Your task to perform on an android device: Go to notification settings Image 0: 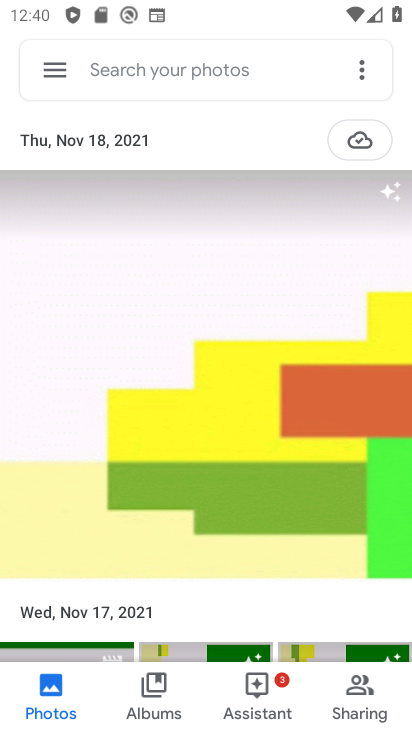
Step 0: press home button
Your task to perform on an android device: Go to notification settings Image 1: 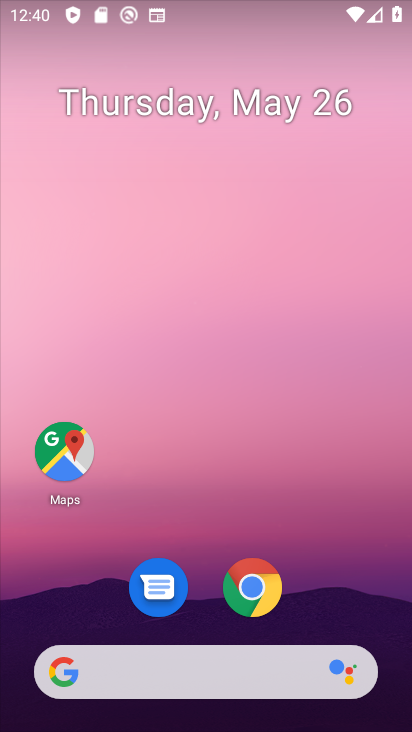
Step 1: drag from (374, 612) to (362, 205)
Your task to perform on an android device: Go to notification settings Image 2: 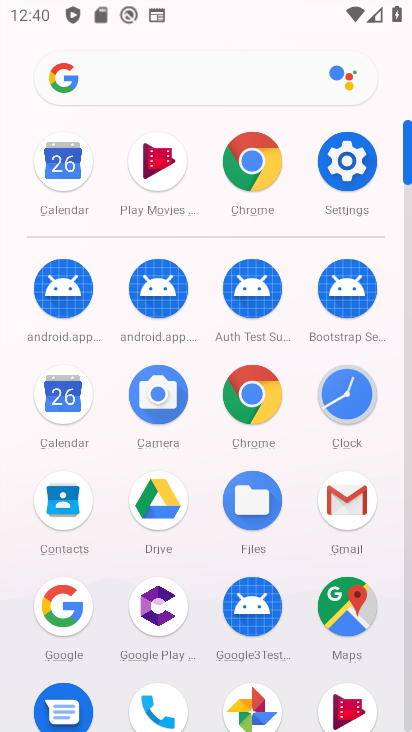
Step 2: click (353, 159)
Your task to perform on an android device: Go to notification settings Image 3: 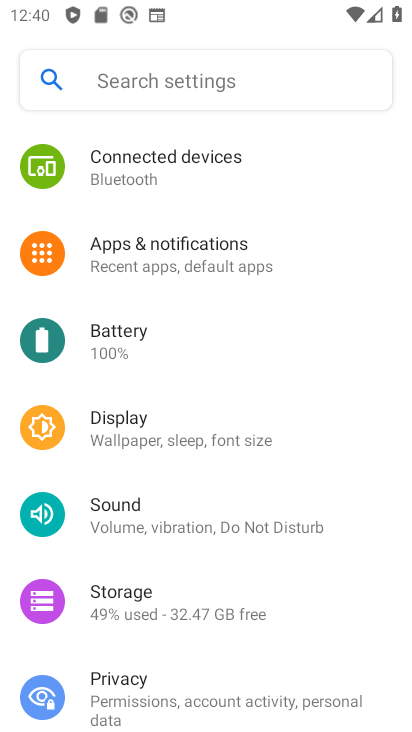
Step 3: drag from (343, 211) to (338, 326)
Your task to perform on an android device: Go to notification settings Image 4: 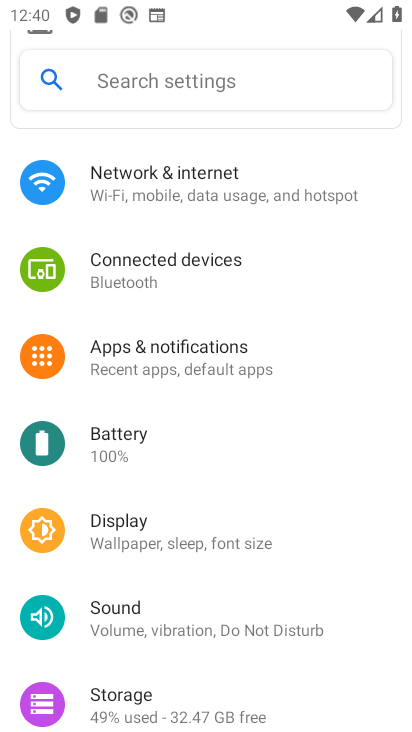
Step 4: drag from (380, 162) to (375, 310)
Your task to perform on an android device: Go to notification settings Image 5: 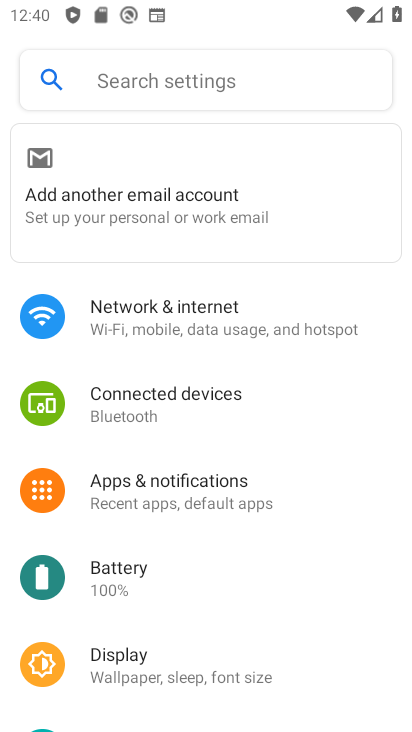
Step 5: drag from (350, 180) to (366, 333)
Your task to perform on an android device: Go to notification settings Image 6: 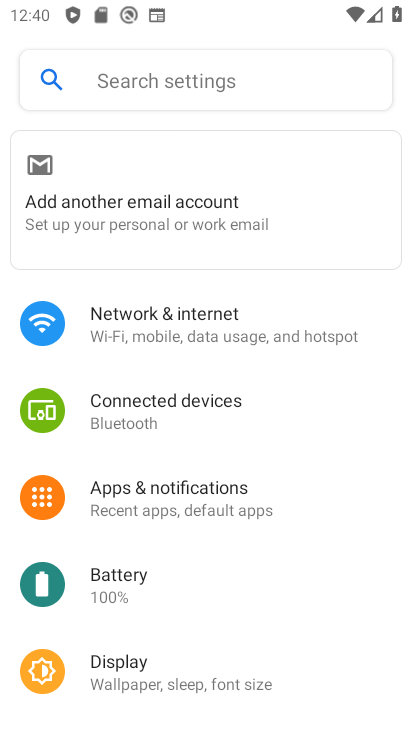
Step 6: drag from (334, 448) to (334, 337)
Your task to perform on an android device: Go to notification settings Image 7: 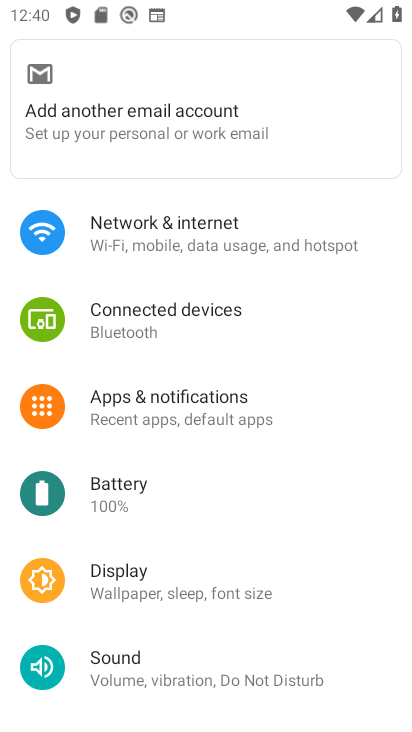
Step 7: drag from (338, 431) to (345, 334)
Your task to perform on an android device: Go to notification settings Image 8: 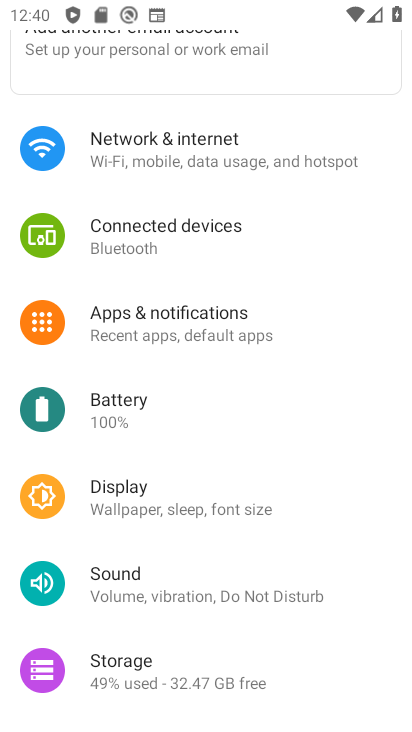
Step 8: drag from (329, 454) to (334, 345)
Your task to perform on an android device: Go to notification settings Image 9: 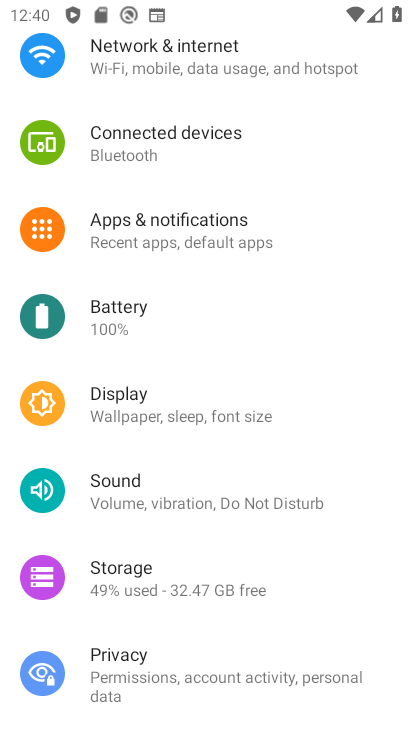
Step 9: drag from (344, 441) to (352, 338)
Your task to perform on an android device: Go to notification settings Image 10: 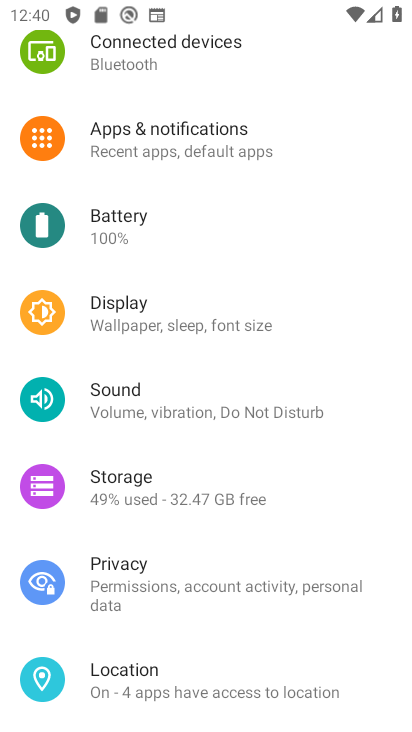
Step 10: drag from (350, 466) to (350, 350)
Your task to perform on an android device: Go to notification settings Image 11: 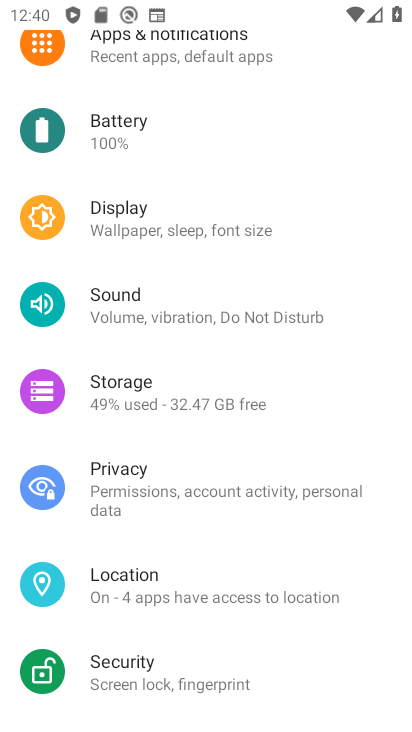
Step 11: drag from (329, 485) to (338, 374)
Your task to perform on an android device: Go to notification settings Image 12: 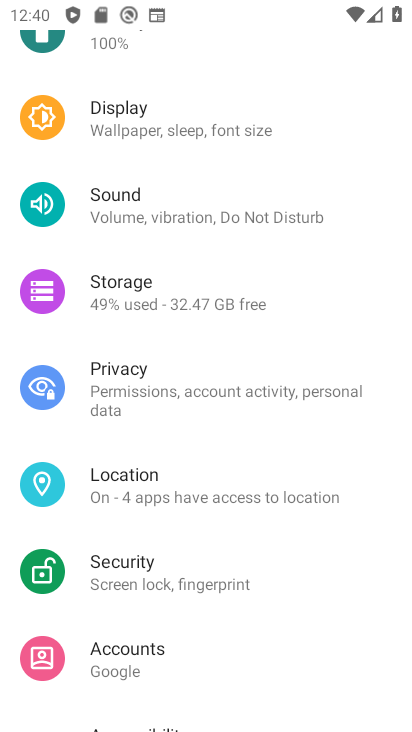
Step 12: drag from (331, 505) to (319, 396)
Your task to perform on an android device: Go to notification settings Image 13: 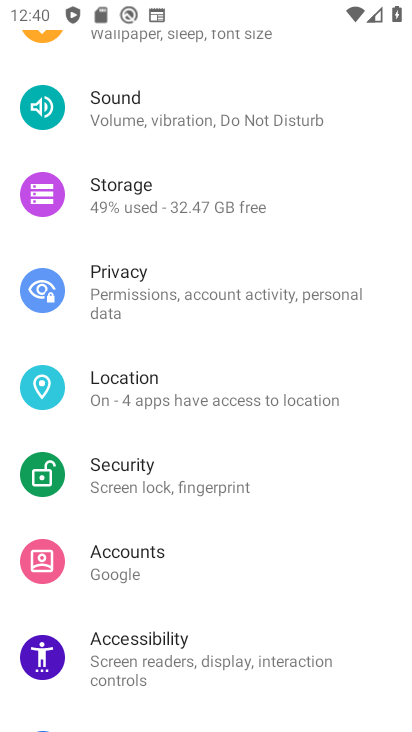
Step 13: drag from (294, 534) to (302, 415)
Your task to perform on an android device: Go to notification settings Image 14: 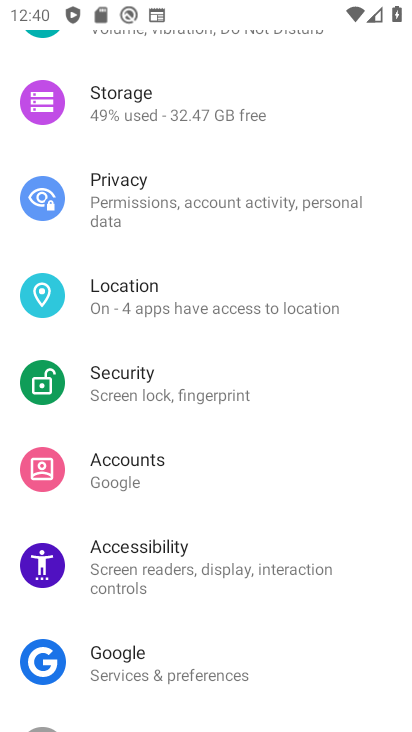
Step 14: drag from (315, 544) to (315, 434)
Your task to perform on an android device: Go to notification settings Image 15: 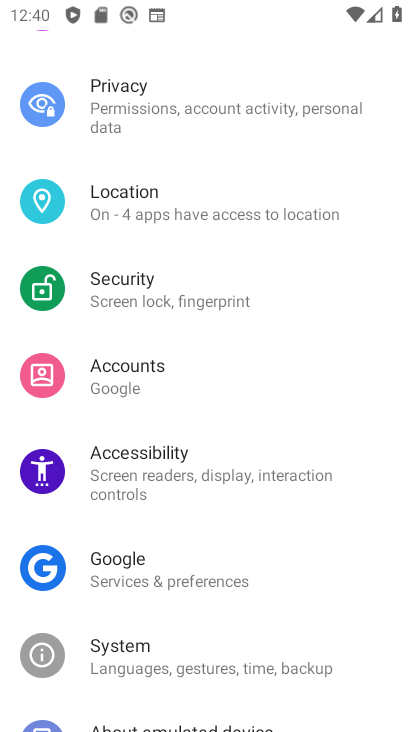
Step 15: drag from (336, 579) to (355, 481)
Your task to perform on an android device: Go to notification settings Image 16: 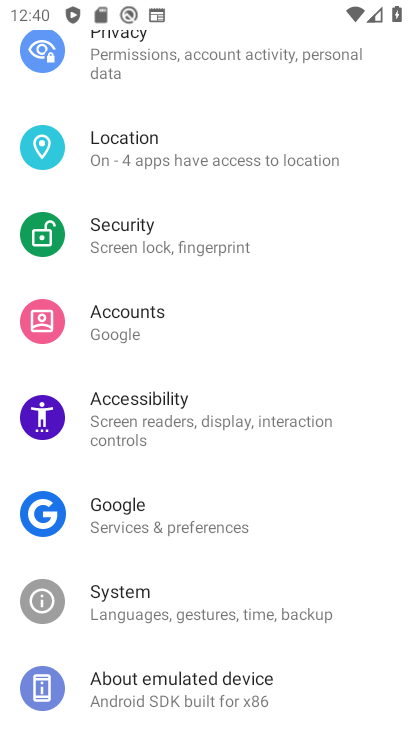
Step 16: drag from (348, 377) to (342, 485)
Your task to perform on an android device: Go to notification settings Image 17: 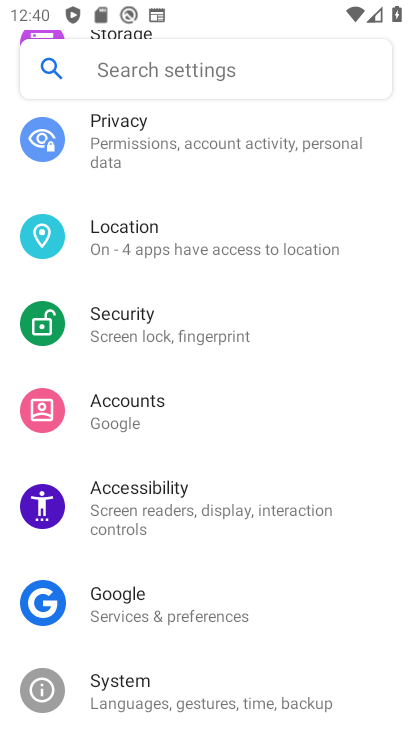
Step 17: drag from (337, 388) to (332, 466)
Your task to perform on an android device: Go to notification settings Image 18: 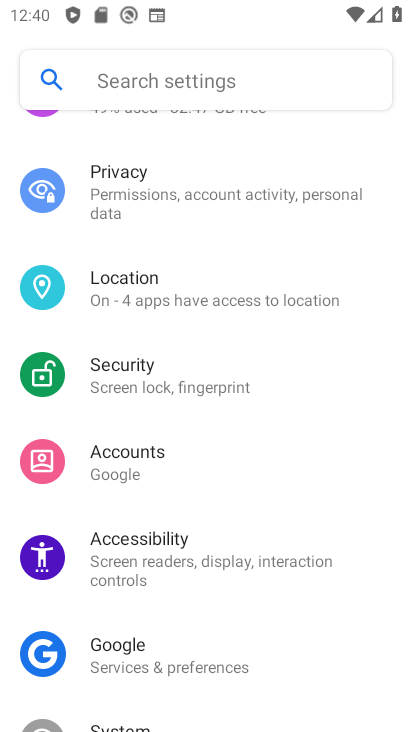
Step 18: drag from (346, 367) to (350, 456)
Your task to perform on an android device: Go to notification settings Image 19: 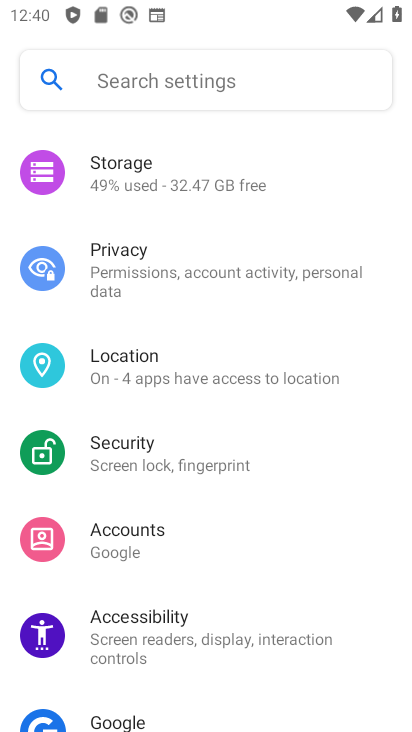
Step 19: drag from (358, 341) to (349, 423)
Your task to perform on an android device: Go to notification settings Image 20: 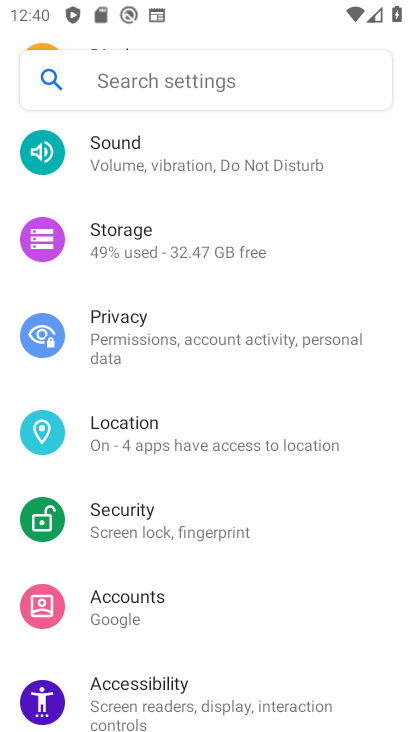
Step 20: drag from (356, 275) to (358, 392)
Your task to perform on an android device: Go to notification settings Image 21: 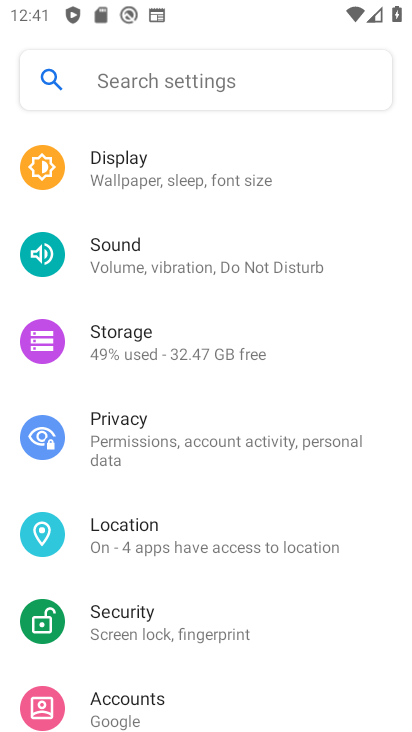
Step 21: drag from (365, 262) to (360, 371)
Your task to perform on an android device: Go to notification settings Image 22: 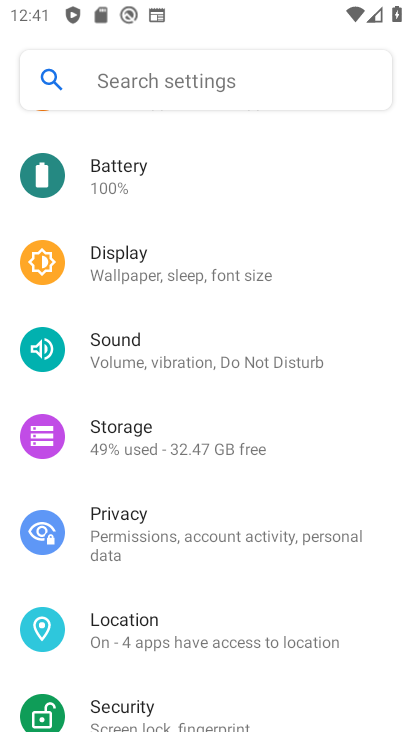
Step 22: drag from (365, 292) to (362, 404)
Your task to perform on an android device: Go to notification settings Image 23: 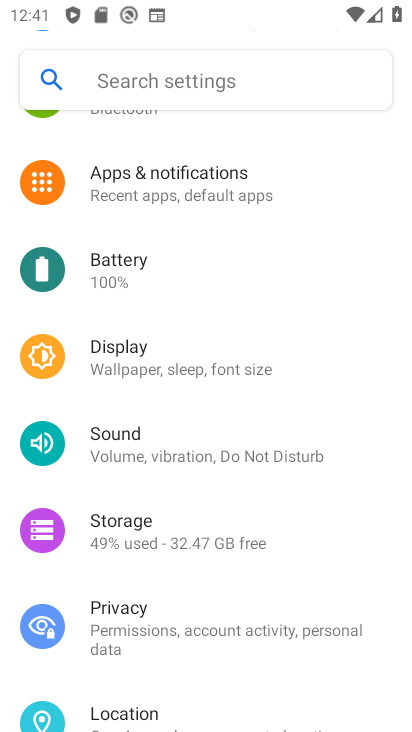
Step 23: drag from (366, 331) to (363, 410)
Your task to perform on an android device: Go to notification settings Image 24: 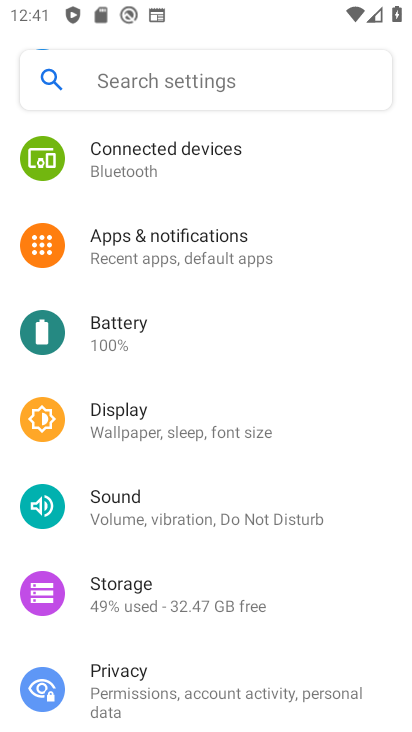
Step 24: drag from (355, 298) to (357, 409)
Your task to perform on an android device: Go to notification settings Image 25: 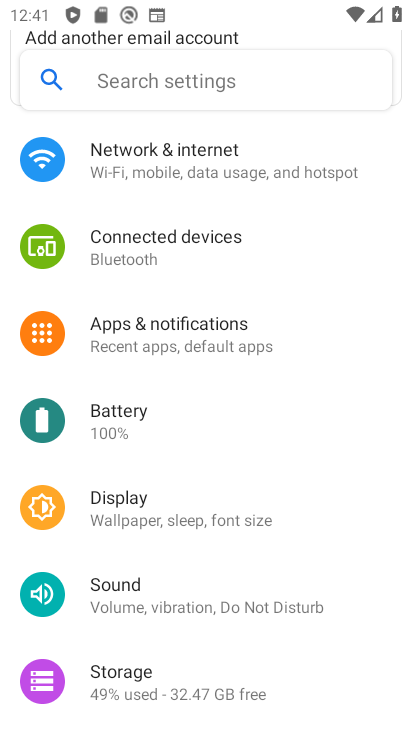
Step 25: drag from (342, 327) to (353, 447)
Your task to perform on an android device: Go to notification settings Image 26: 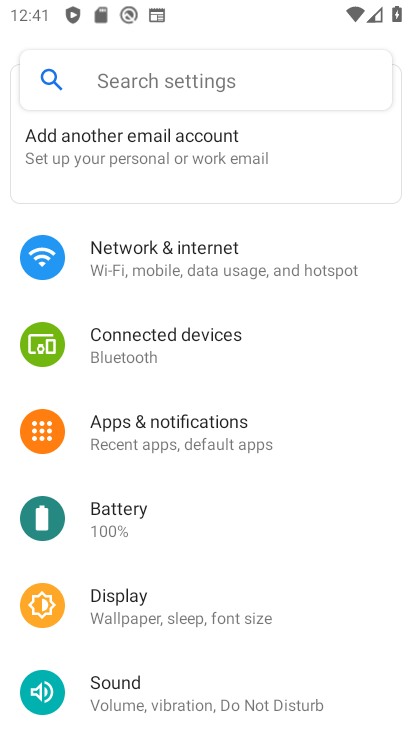
Step 26: click (252, 424)
Your task to perform on an android device: Go to notification settings Image 27: 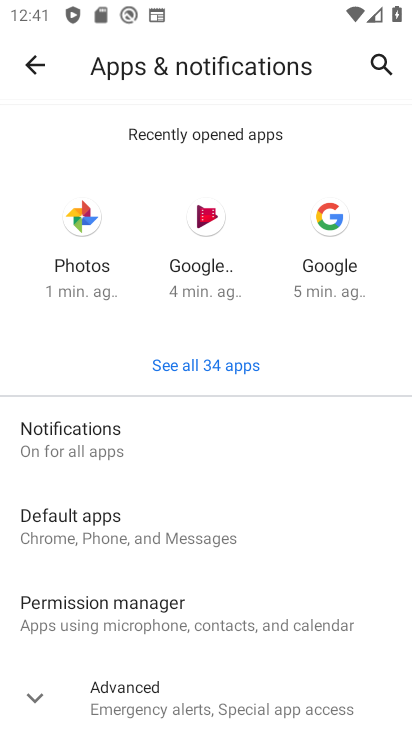
Step 27: drag from (286, 562) to (299, 462)
Your task to perform on an android device: Go to notification settings Image 28: 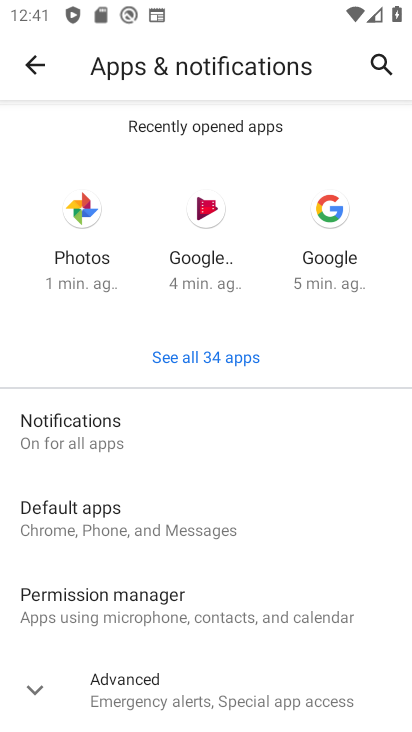
Step 28: click (132, 438)
Your task to perform on an android device: Go to notification settings Image 29: 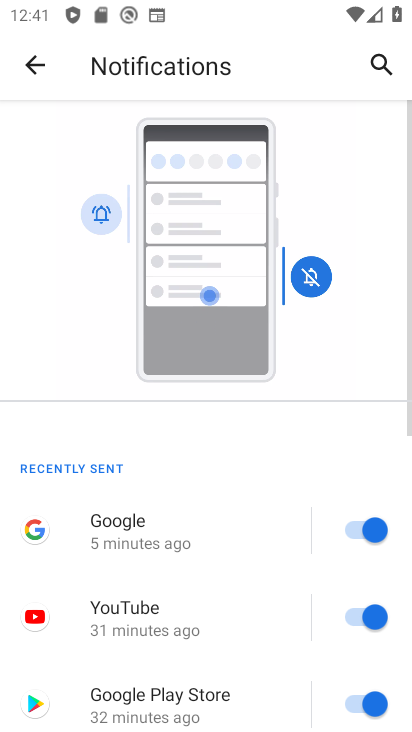
Step 29: task complete